Your task to perform on an android device: turn on wifi Image 0: 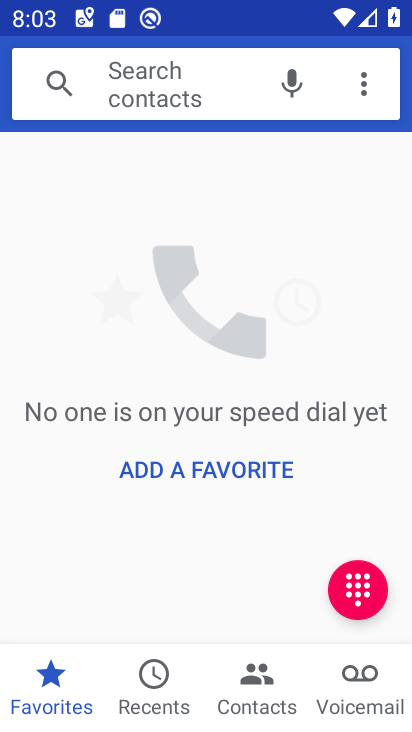
Step 0: press home button
Your task to perform on an android device: turn on wifi Image 1: 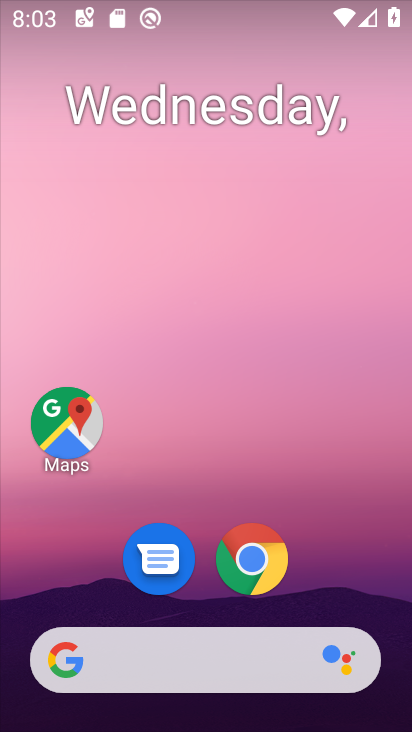
Step 1: drag from (380, 562) to (322, 52)
Your task to perform on an android device: turn on wifi Image 2: 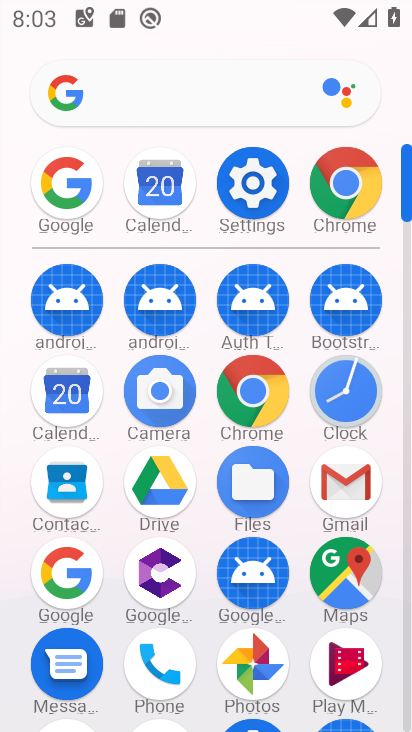
Step 2: click (265, 164)
Your task to perform on an android device: turn on wifi Image 3: 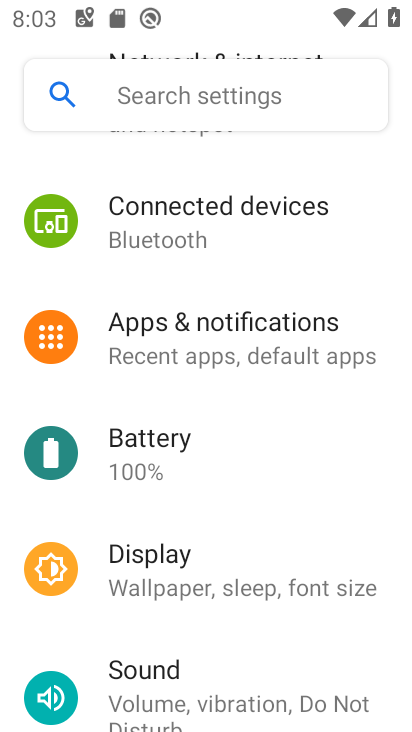
Step 3: drag from (364, 173) to (377, 515)
Your task to perform on an android device: turn on wifi Image 4: 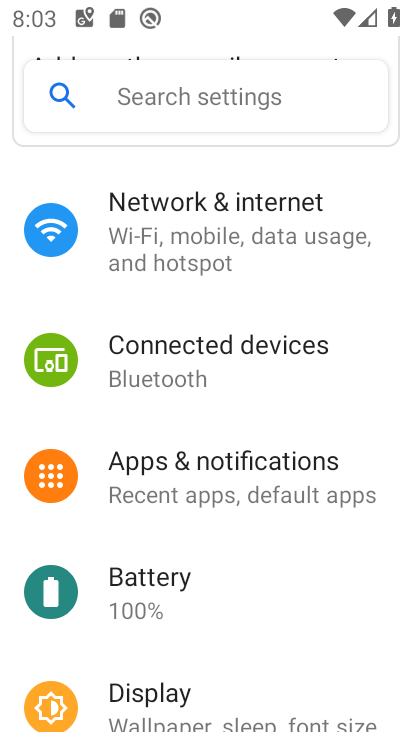
Step 4: click (309, 228)
Your task to perform on an android device: turn on wifi Image 5: 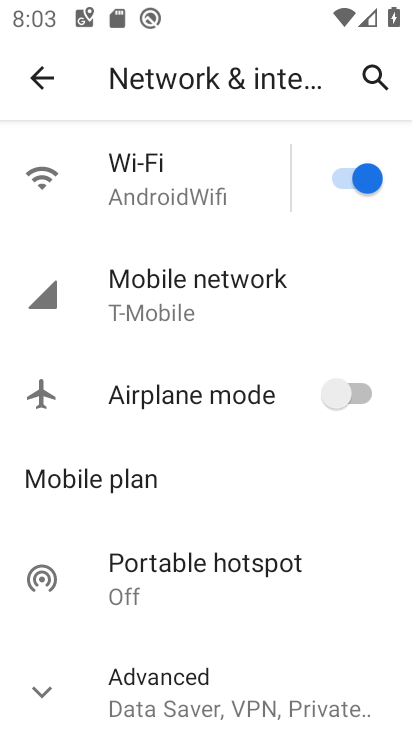
Step 5: task complete